Your task to perform on an android device: Open ESPN.com Image 0: 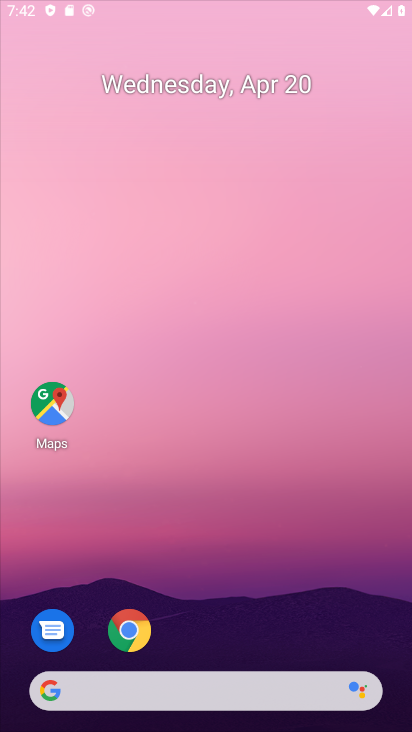
Step 0: click (294, 418)
Your task to perform on an android device: Open ESPN.com Image 1: 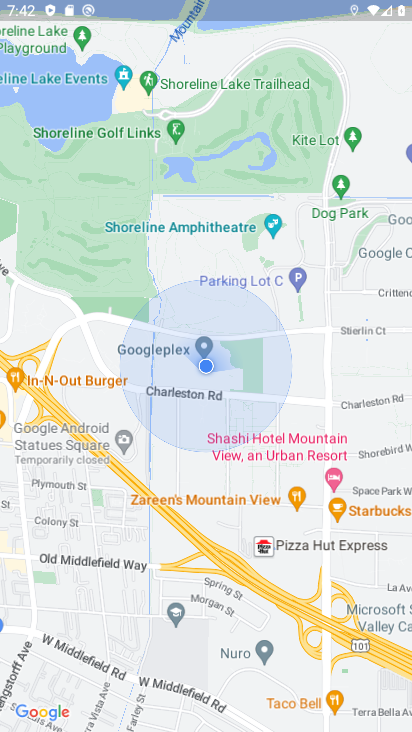
Step 1: press home button
Your task to perform on an android device: Open ESPN.com Image 2: 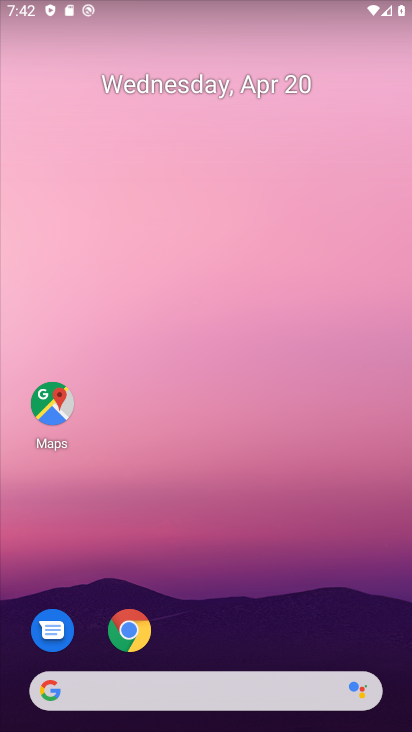
Step 2: drag from (294, 534) to (390, 40)
Your task to perform on an android device: Open ESPN.com Image 3: 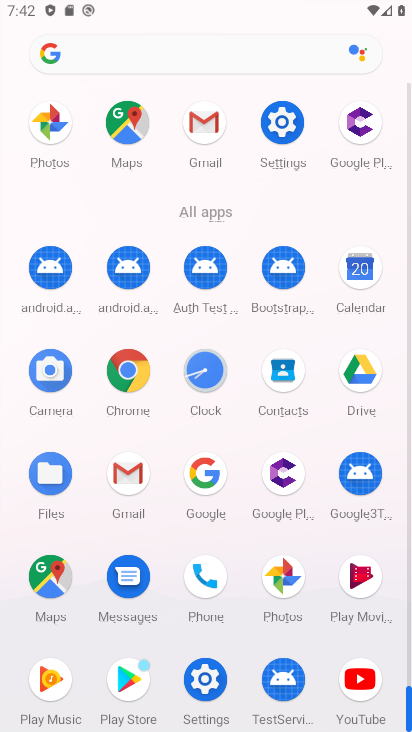
Step 3: click (139, 398)
Your task to perform on an android device: Open ESPN.com Image 4: 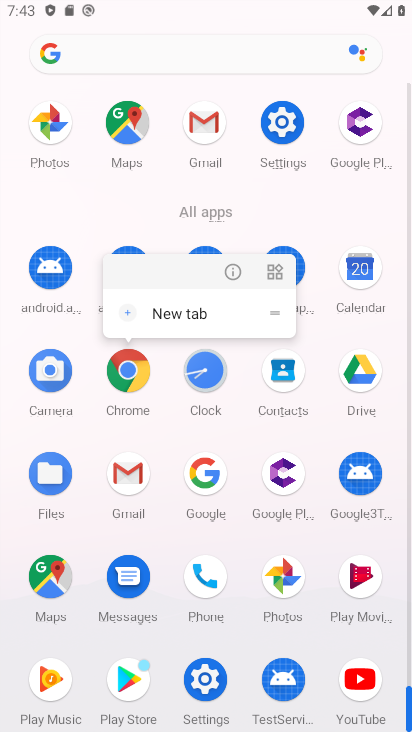
Step 4: click (122, 392)
Your task to perform on an android device: Open ESPN.com Image 5: 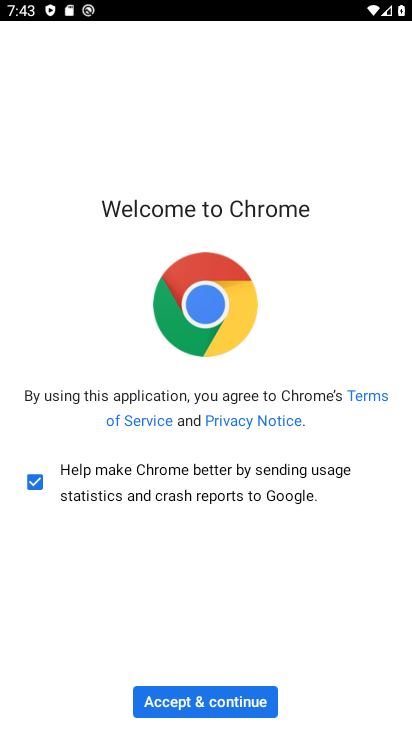
Step 5: click (238, 716)
Your task to perform on an android device: Open ESPN.com Image 6: 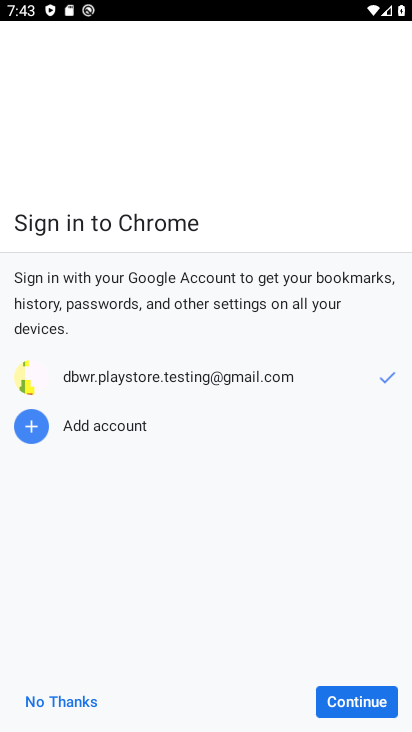
Step 6: click (371, 713)
Your task to perform on an android device: Open ESPN.com Image 7: 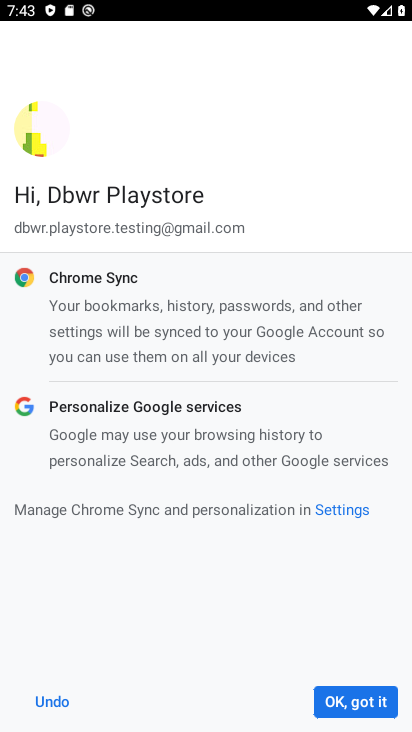
Step 7: click (378, 687)
Your task to perform on an android device: Open ESPN.com Image 8: 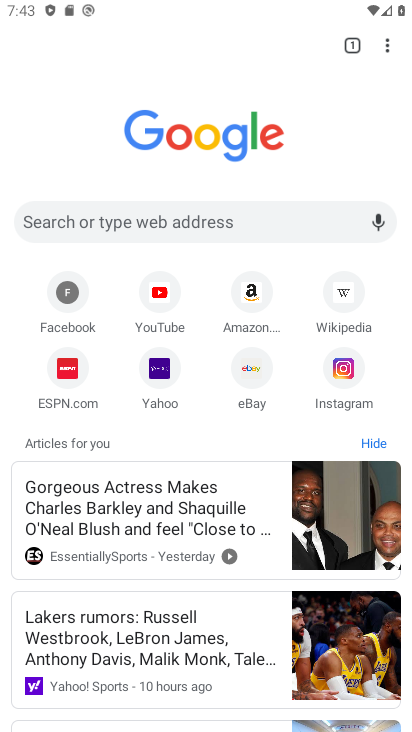
Step 8: click (65, 367)
Your task to perform on an android device: Open ESPN.com Image 9: 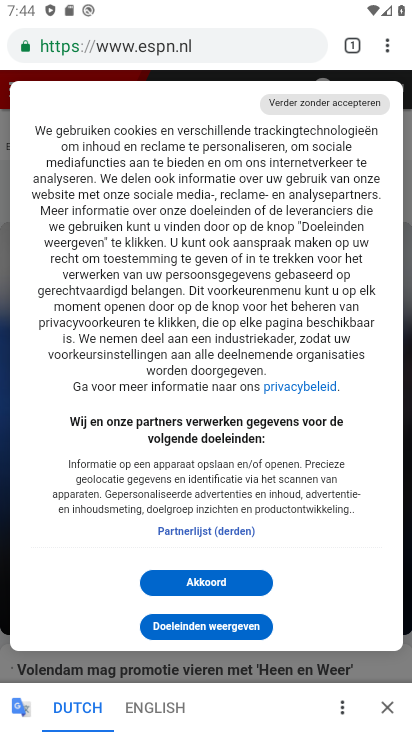
Step 9: click (385, 719)
Your task to perform on an android device: Open ESPN.com Image 10: 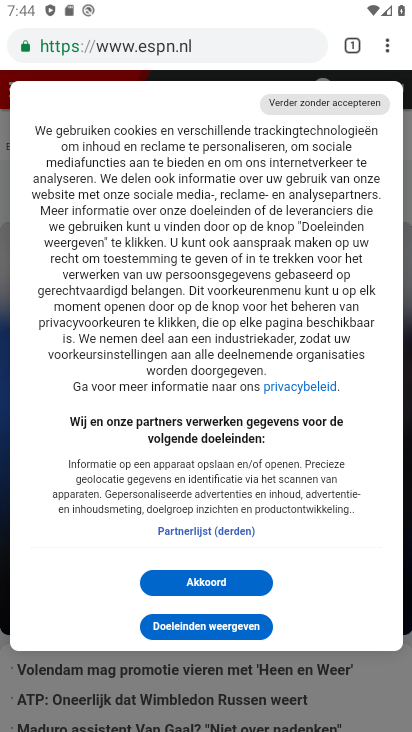
Step 10: task complete